Your task to perform on an android device: turn off wifi Image 0: 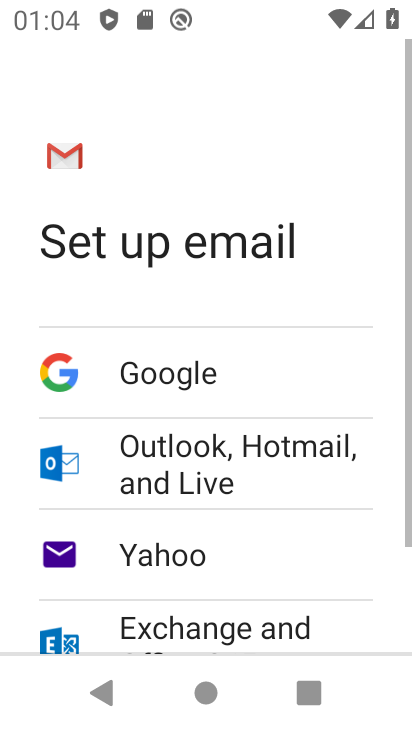
Step 0: press home button
Your task to perform on an android device: turn off wifi Image 1: 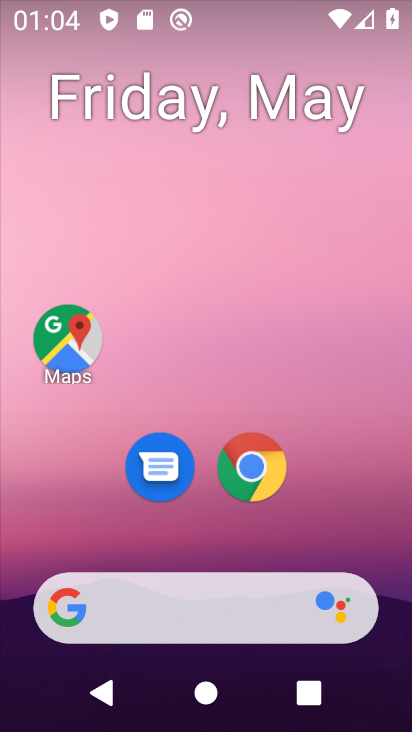
Step 1: drag from (285, 665) to (292, 223)
Your task to perform on an android device: turn off wifi Image 2: 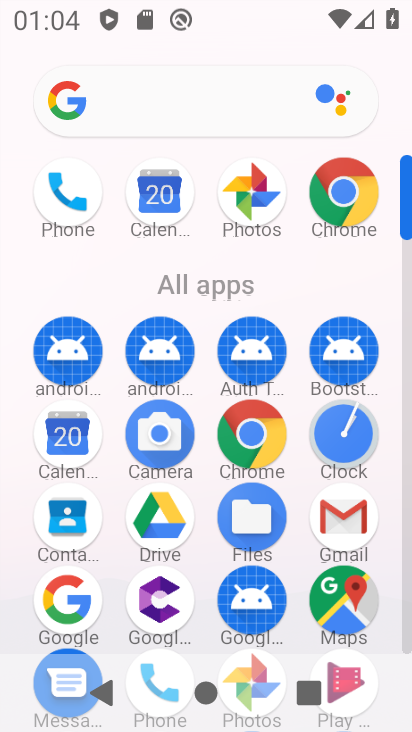
Step 2: drag from (205, 561) to (239, 283)
Your task to perform on an android device: turn off wifi Image 3: 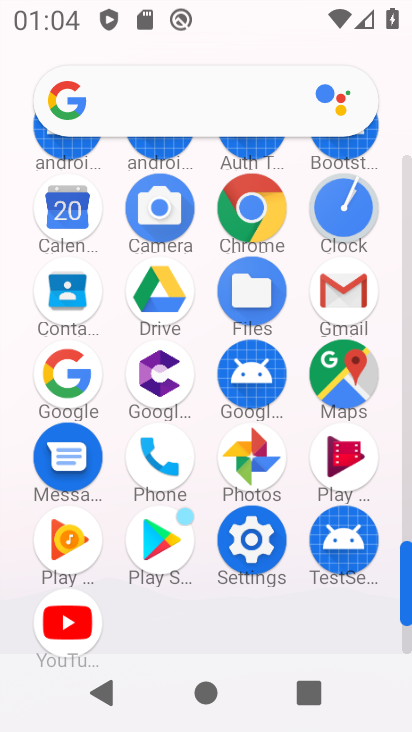
Step 3: click (256, 543)
Your task to perform on an android device: turn off wifi Image 4: 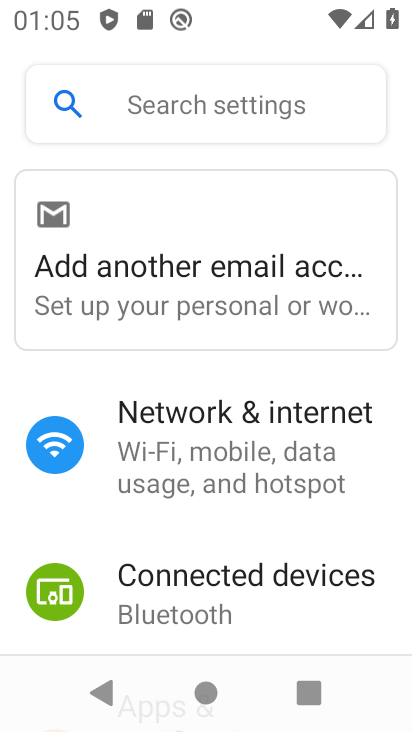
Step 4: click (180, 423)
Your task to perform on an android device: turn off wifi Image 5: 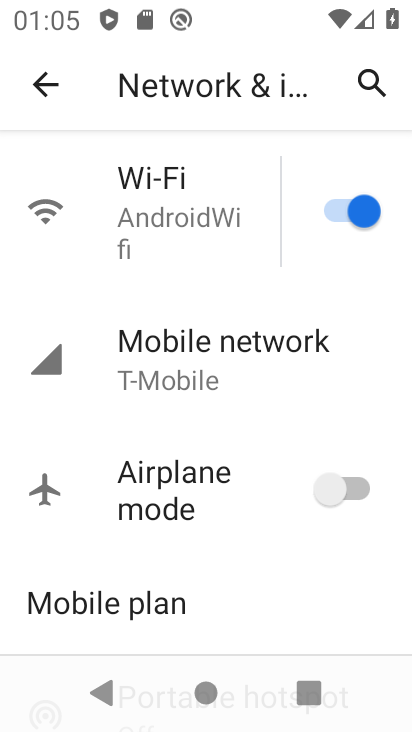
Step 5: click (182, 229)
Your task to perform on an android device: turn off wifi Image 6: 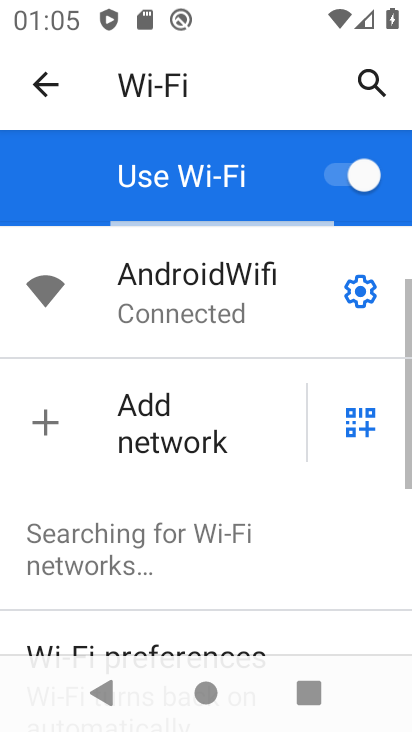
Step 6: click (345, 167)
Your task to perform on an android device: turn off wifi Image 7: 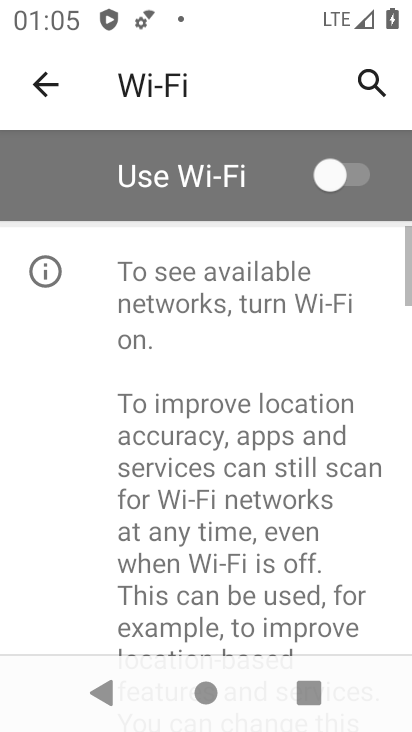
Step 7: task complete